Your task to perform on an android device: open device folders in google photos Image 0: 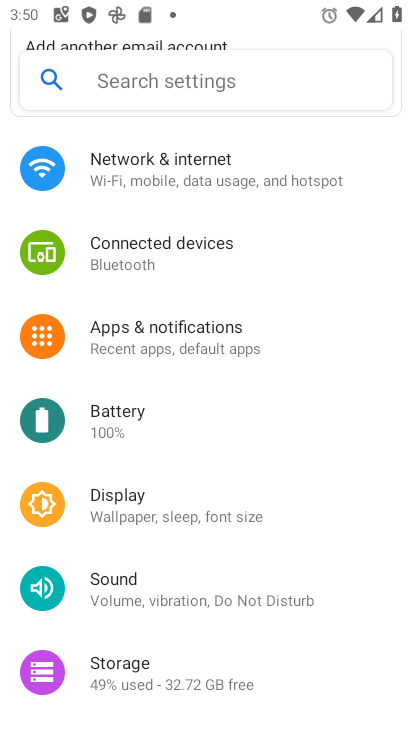
Step 0: press home button
Your task to perform on an android device: open device folders in google photos Image 1: 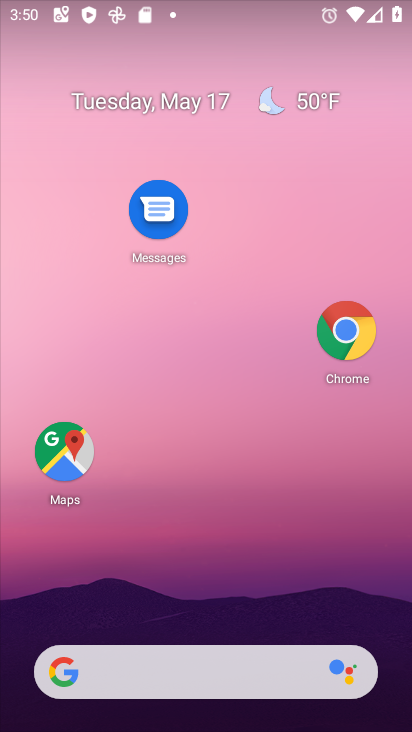
Step 1: drag from (250, 584) to (237, 4)
Your task to perform on an android device: open device folders in google photos Image 2: 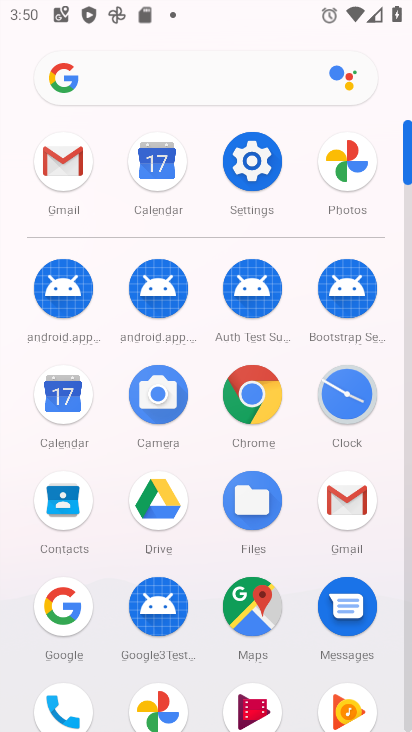
Step 2: click (270, 156)
Your task to perform on an android device: open device folders in google photos Image 3: 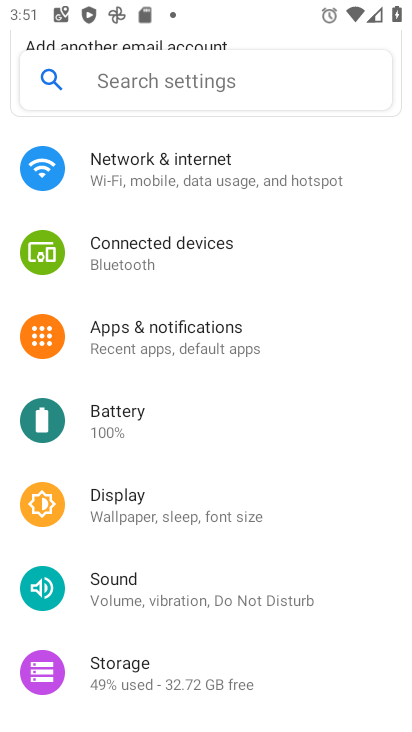
Step 3: drag from (146, 575) to (288, 312)
Your task to perform on an android device: open device folders in google photos Image 4: 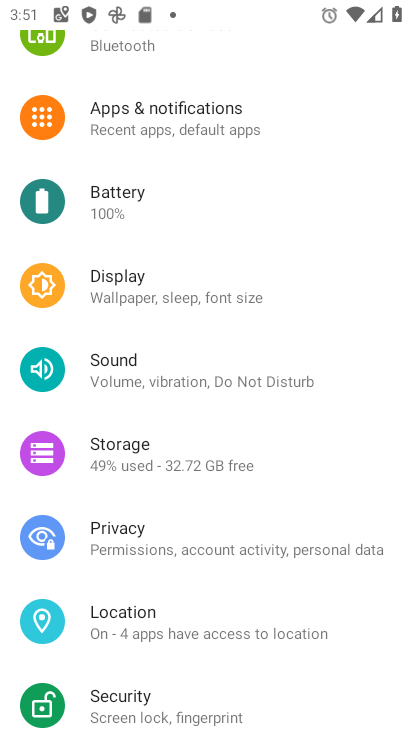
Step 4: press home button
Your task to perform on an android device: open device folders in google photos Image 5: 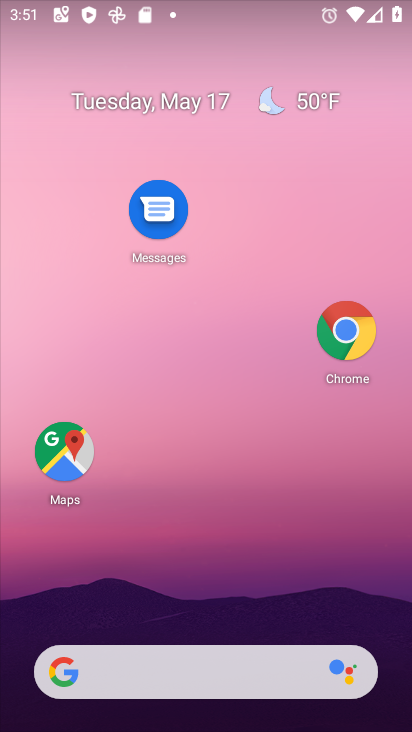
Step 5: drag from (259, 616) to (310, 69)
Your task to perform on an android device: open device folders in google photos Image 6: 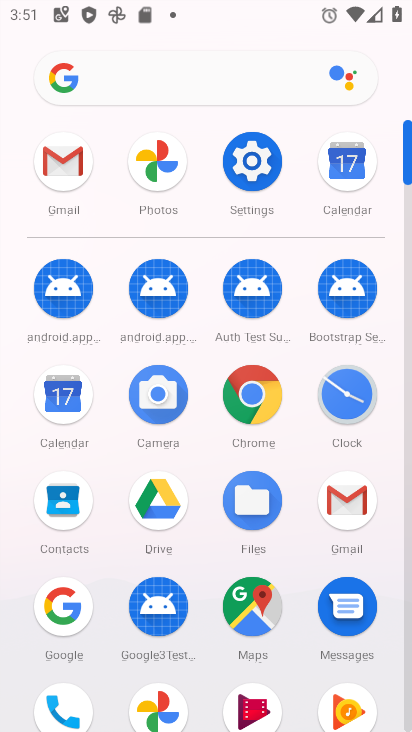
Step 6: click (167, 693)
Your task to perform on an android device: open device folders in google photos Image 7: 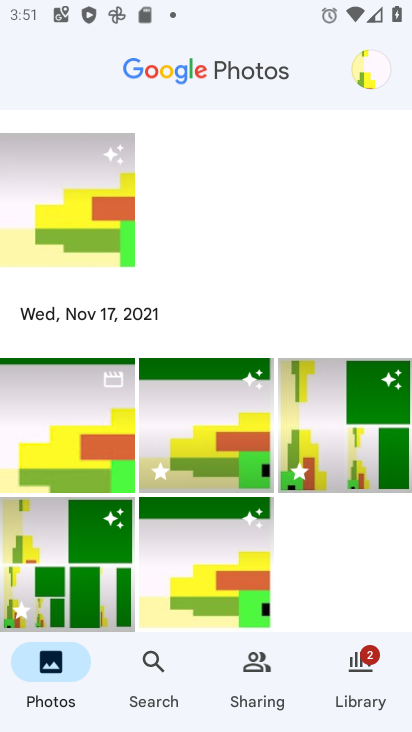
Step 7: click (370, 84)
Your task to perform on an android device: open device folders in google photos Image 8: 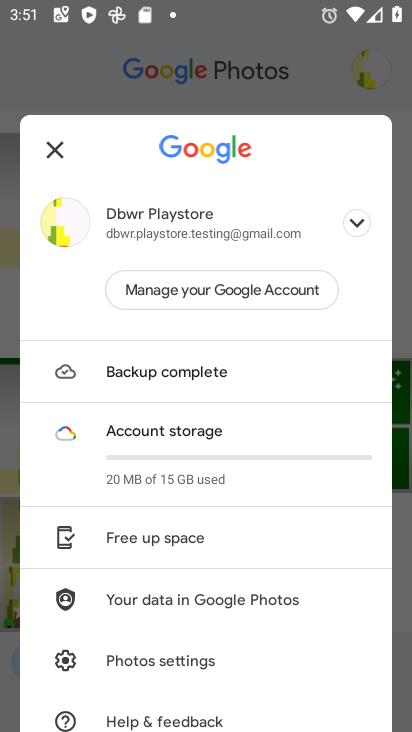
Step 8: task complete